Your task to perform on an android device: open the mobile data screen to see how much data has been used Image 0: 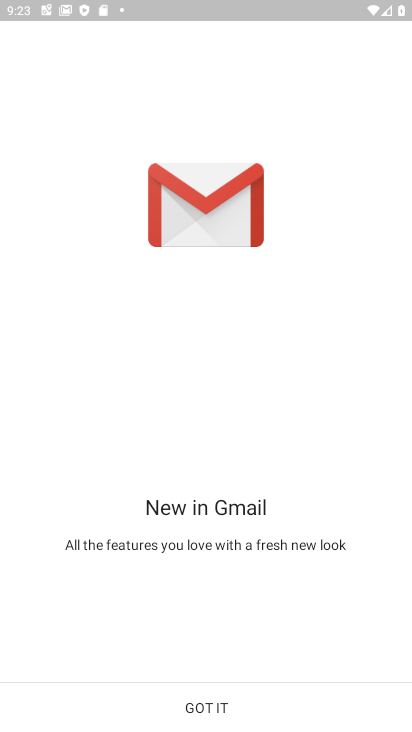
Step 0: press home button
Your task to perform on an android device: open the mobile data screen to see how much data has been used Image 1: 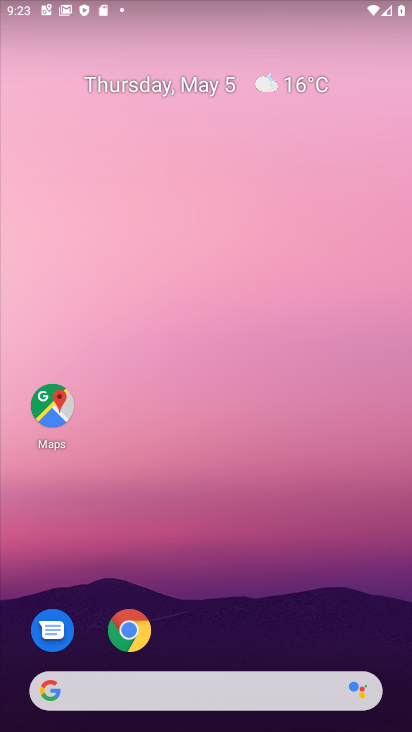
Step 1: drag from (275, 619) to (288, 120)
Your task to perform on an android device: open the mobile data screen to see how much data has been used Image 2: 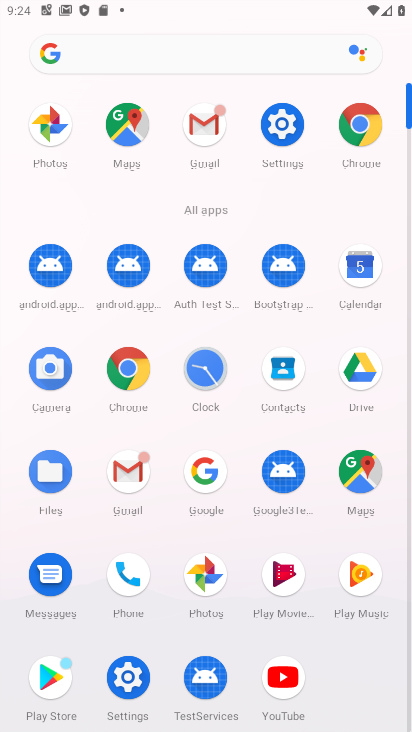
Step 2: click (112, 678)
Your task to perform on an android device: open the mobile data screen to see how much data has been used Image 3: 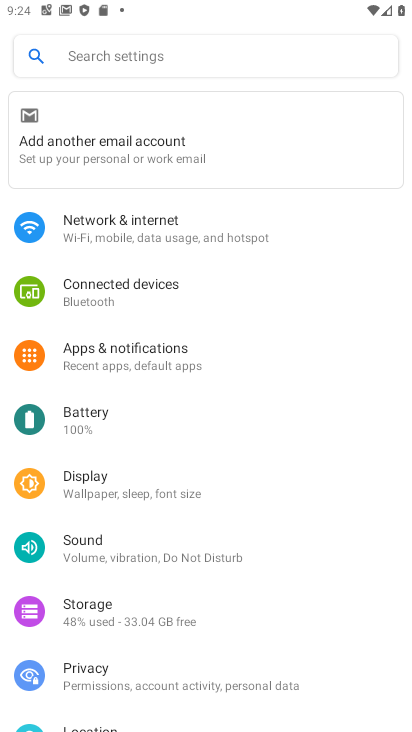
Step 3: drag from (238, 635) to (227, 532)
Your task to perform on an android device: open the mobile data screen to see how much data has been used Image 4: 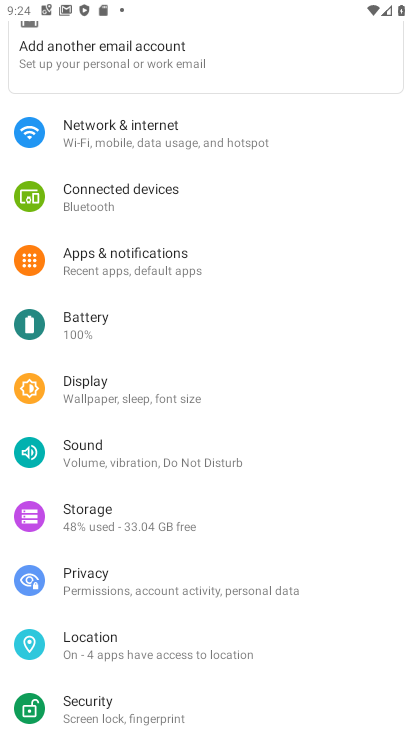
Step 4: click (134, 136)
Your task to perform on an android device: open the mobile data screen to see how much data has been used Image 5: 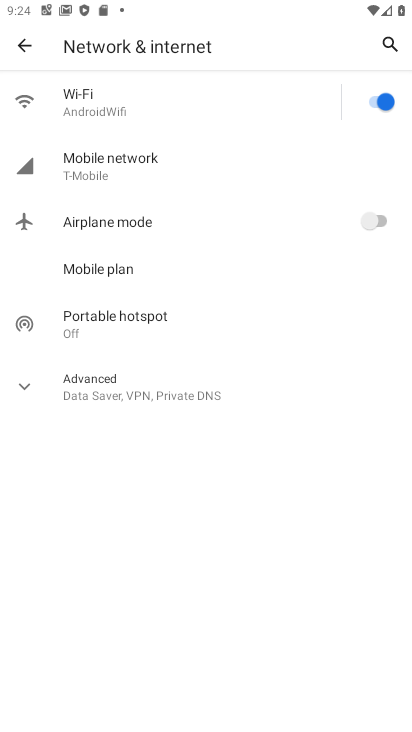
Step 5: click (136, 166)
Your task to perform on an android device: open the mobile data screen to see how much data has been used Image 6: 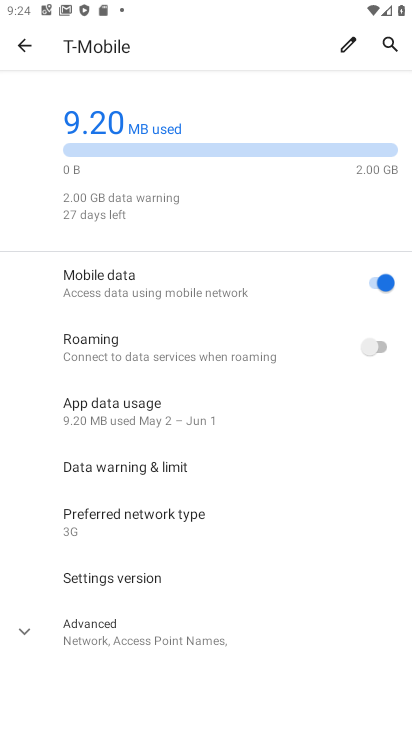
Step 6: task complete